Your task to perform on an android device: Open ESPN.com Image 0: 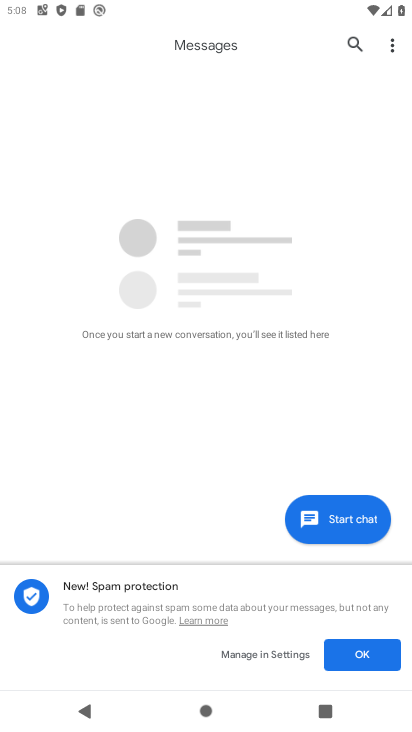
Step 0: press back button
Your task to perform on an android device: Open ESPN.com Image 1: 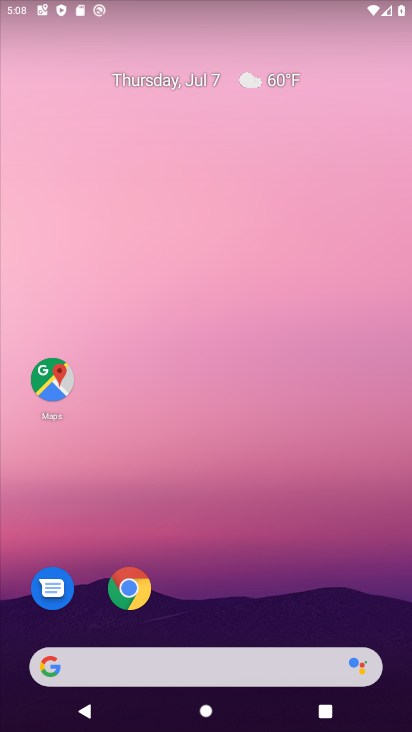
Step 1: click (129, 585)
Your task to perform on an android device: Open ESPN.com Image 2: 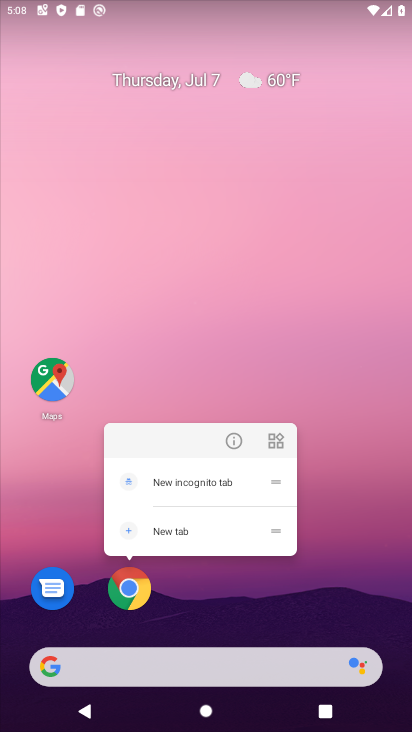
Step 2: click (121, 595)
Your task to perform on an android device: Open ESPN.com Image 3: 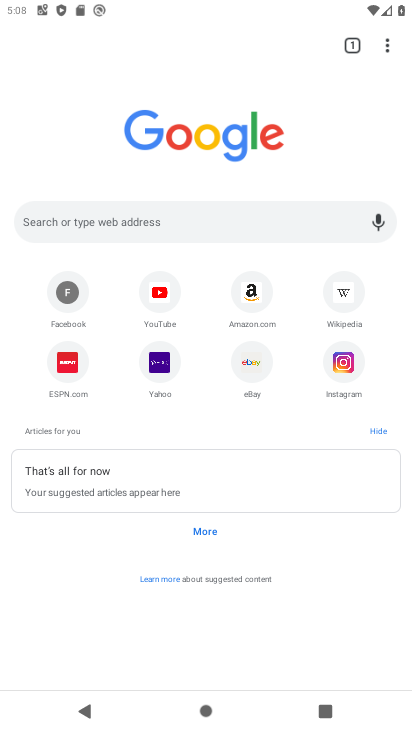
Step 3: click (59, 385)
Your task to perform on an android device: Open ESPN.com Image 4: 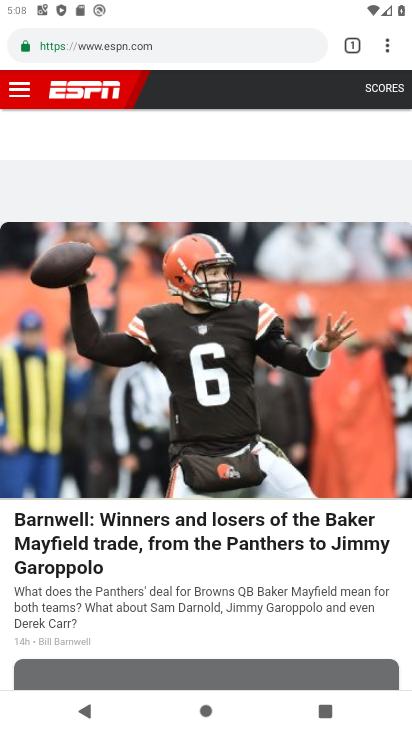
Step 4: task complete